Your task to perform on an android device: show emergency info Image 0: 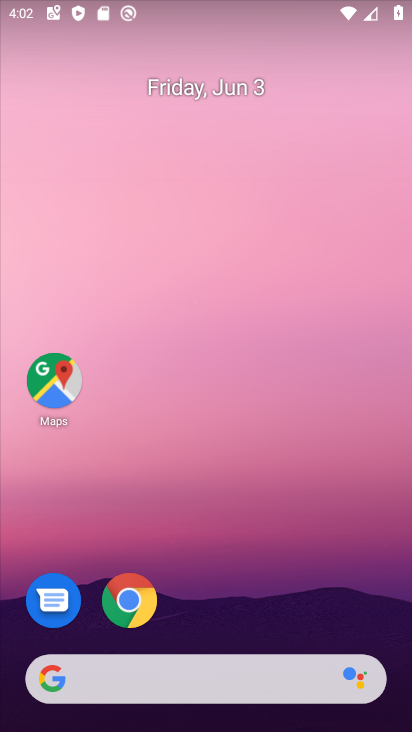
Step 0: drag from (223, 635) to (269, 9)
Your task to perform on an android device: show emergency info Image 1: 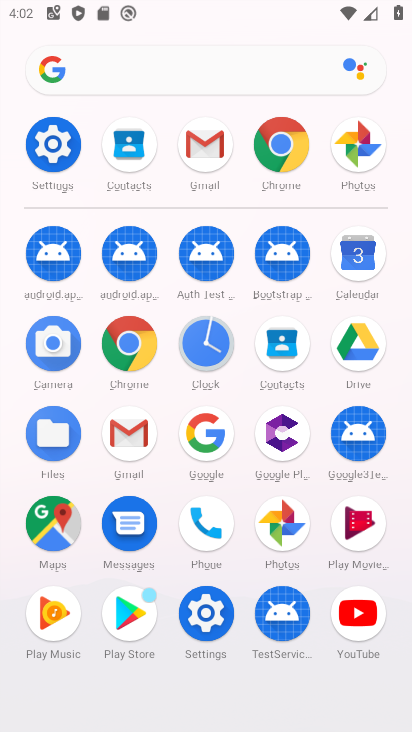
Step 1: click (57, 169)
Your task to perform on an android device: show emergency info Image 2: 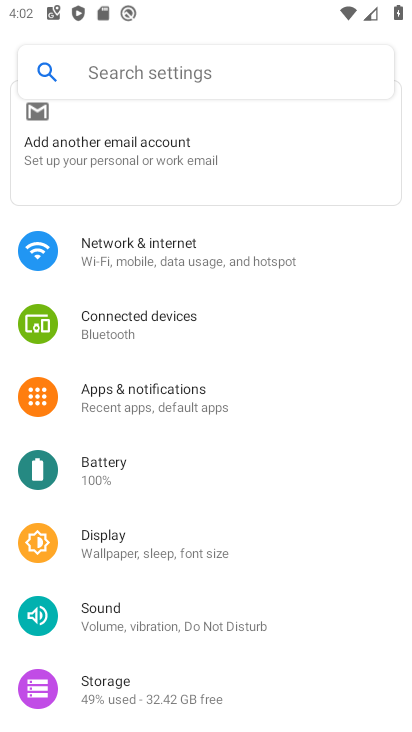
Step 2: drag from (163, 626) to (239, 77)
Your task to perform on an android device: show emergency info Image 3: 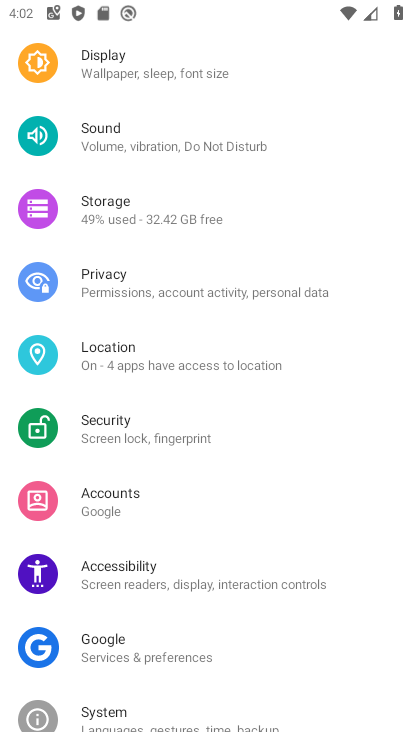
Step 3: drag from (203, 622) to (250, 126)
Your task to perform on an android device: show emergency info Image 4: 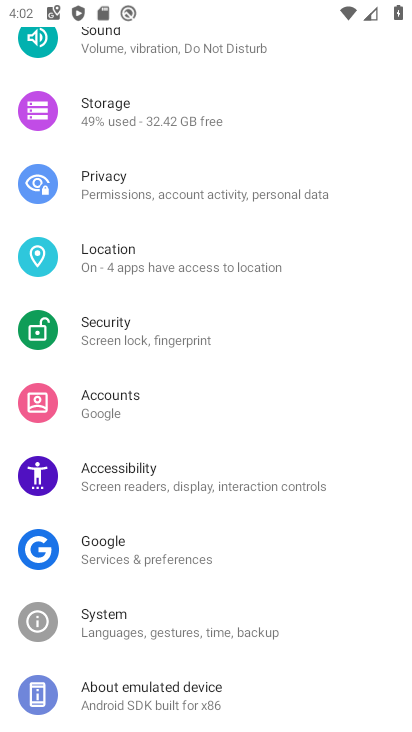
Step 4: click (195, 701)
Your task to perform on an android device: show emergency info Image 5: 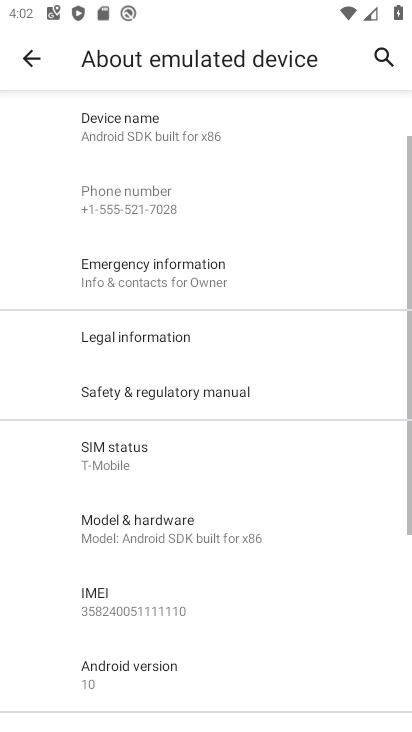
Step 5: click (176, 279)
Your task to perform on an android device: show emergency info Image 6: 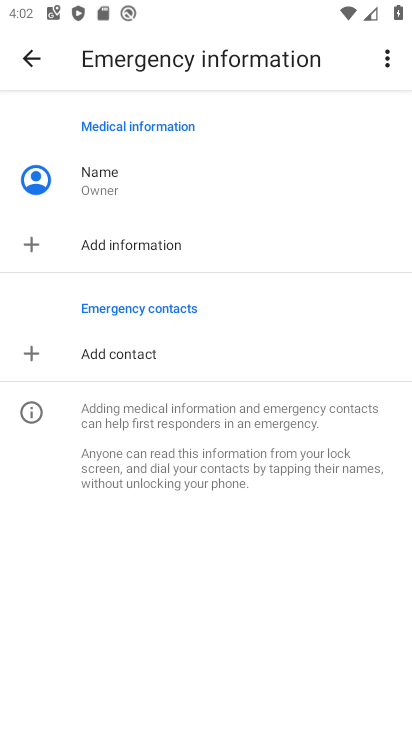
Step 6: task complete